Your task to perform on an android device: Open network settings Image 0: 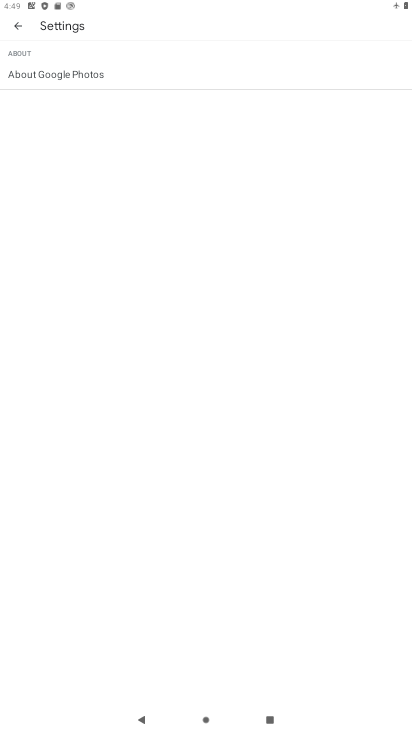
Step 0: press home button
Your task to perform on an android device: Open network settings Image 1: 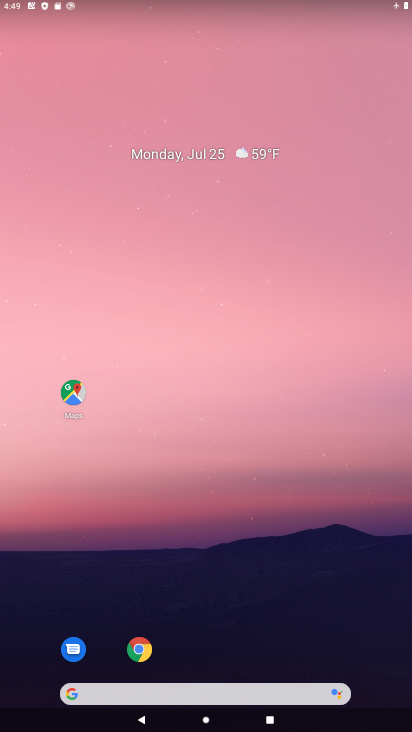
Step 1: drag from (229, 698) to (208, 85)
Your task to perform on an android device: Open network settings Image 2: 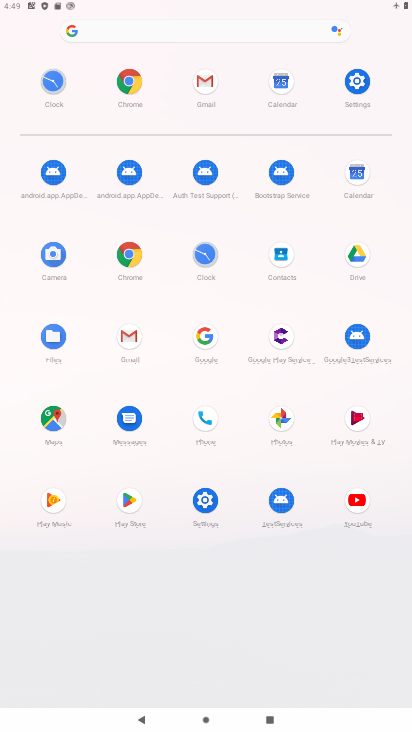
Step 2: click (357, 94)
Your task to perform on an android device: Open network settings Image 3: 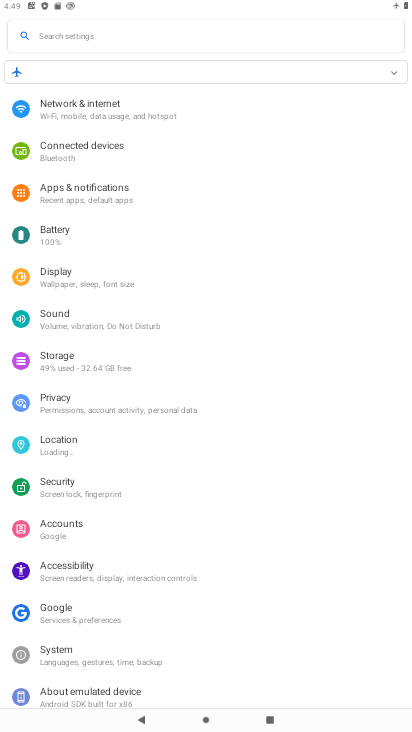
Step 3: click (92, 195)
Your task to perform on an android device: Open network settings Image 4: 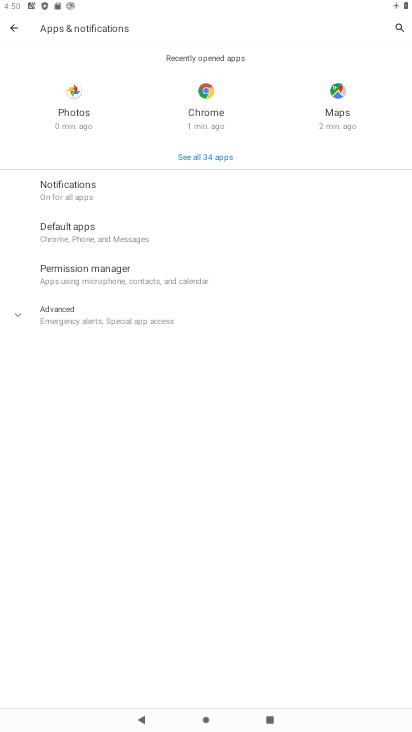
Step 4: press home button
Your task to perform on an android device: Open network settings Image 5: 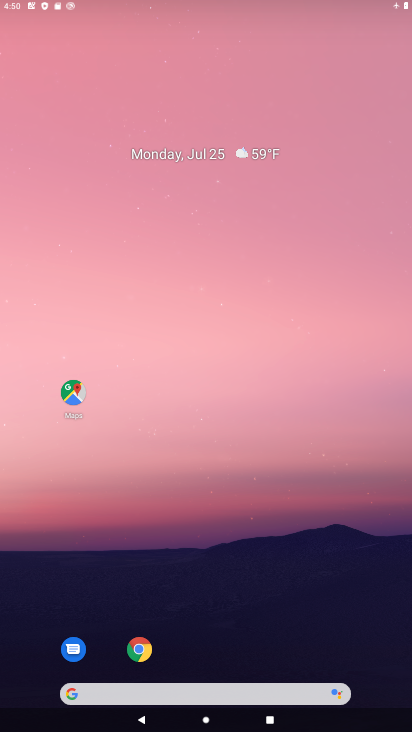
Step 5: drag from (188, 541) to (210, 0)
Your task to perform on an android device: Open network settings Image 6: 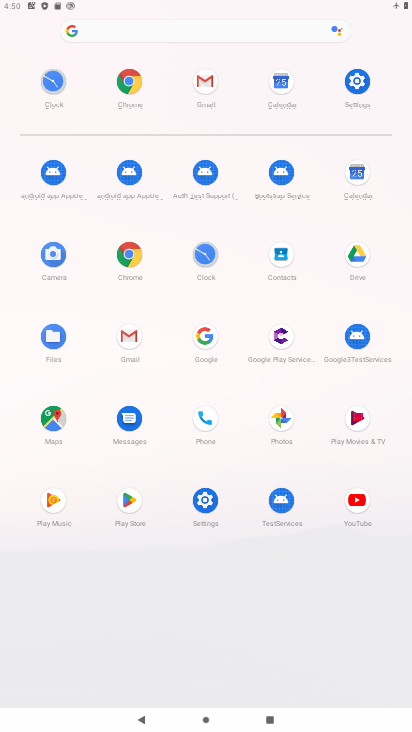
Step 6: click (368, 92)
Your task to perform on an android device: Open network settings Image 7: 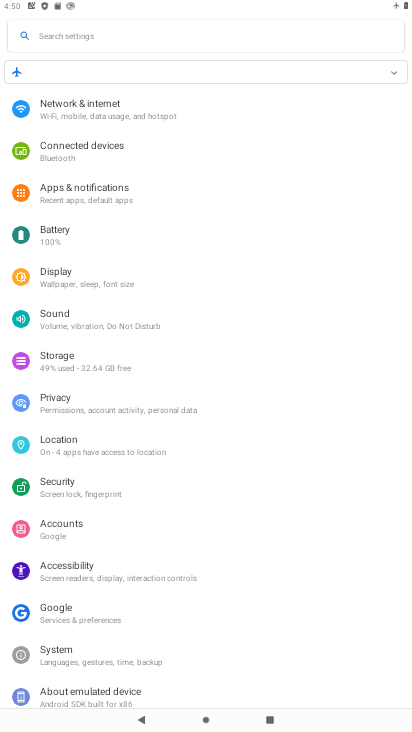
Step 7: click (111, 109)
Your task to perform on an android device: Open network settings Image 8: 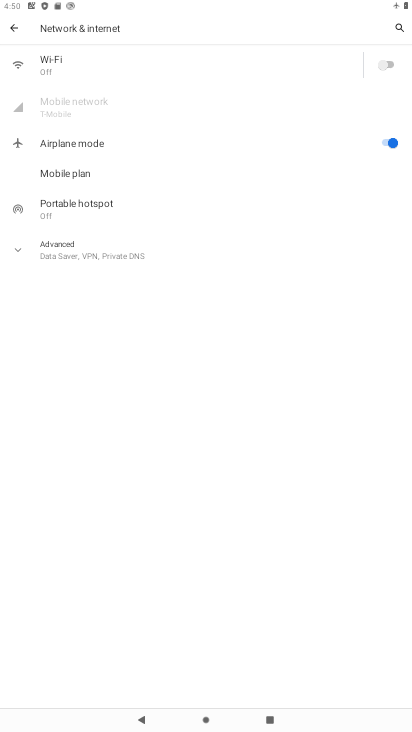
Step 8: task complete